Your task to perform on an android device: Go to internet settings Image 0: 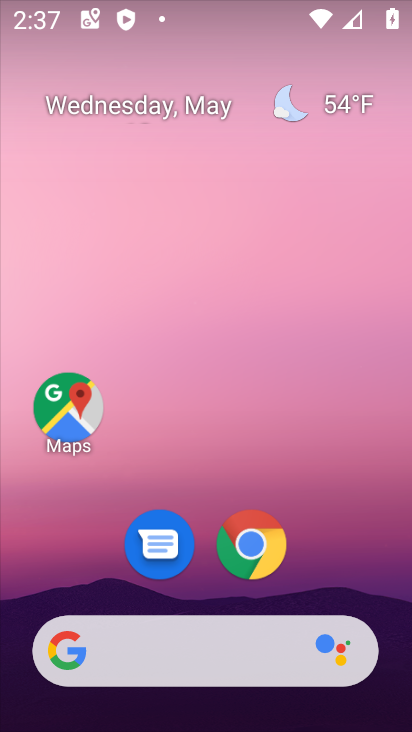
Step 0: drag from (363, 546) to (21, 0)
Your task to perform on an android device: Go to internet settings Image 1: 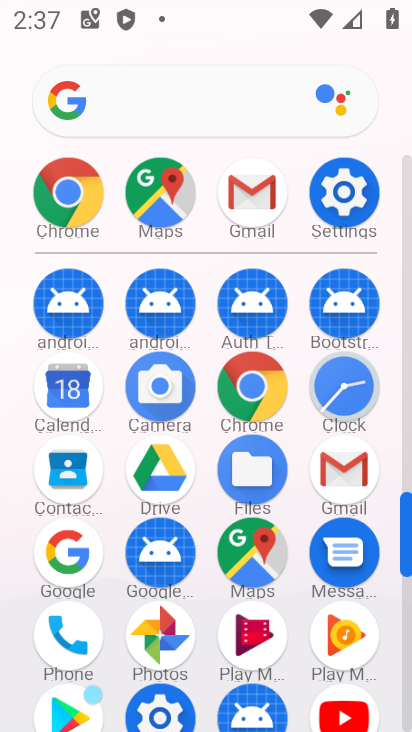
Step 1: click (331, 234)
Your task to perform on an android device: Go to internet settings Image 2: 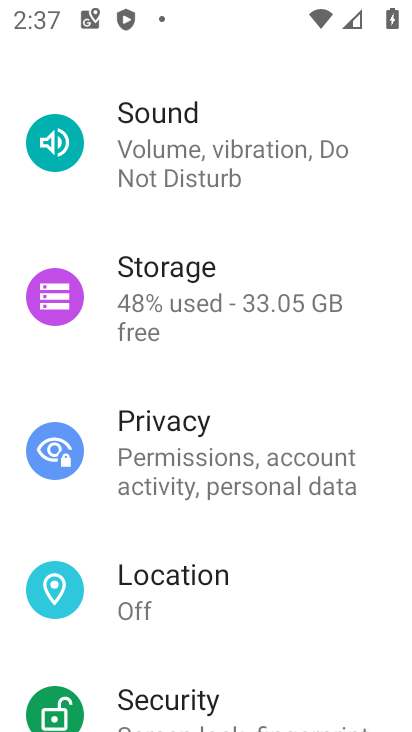
Step 2: drag from (266, 214) to (280, 690)
Your task to perform on an android device: Go to internet settings Image 3: 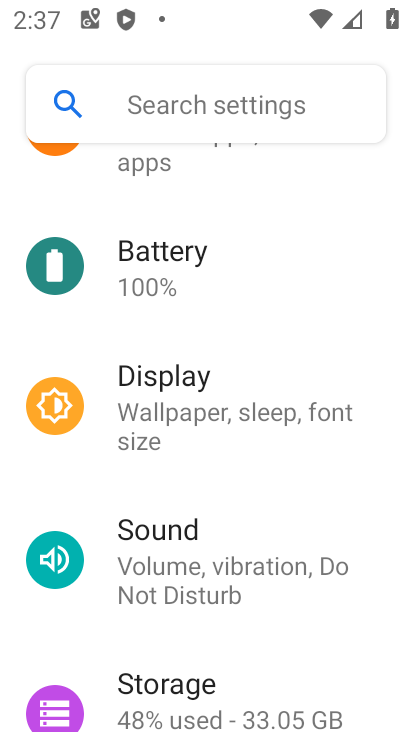
Step 3: drag from (192, 297) to (207, 687)
Your task to perform on an android device: Go to internet settings Image 4: 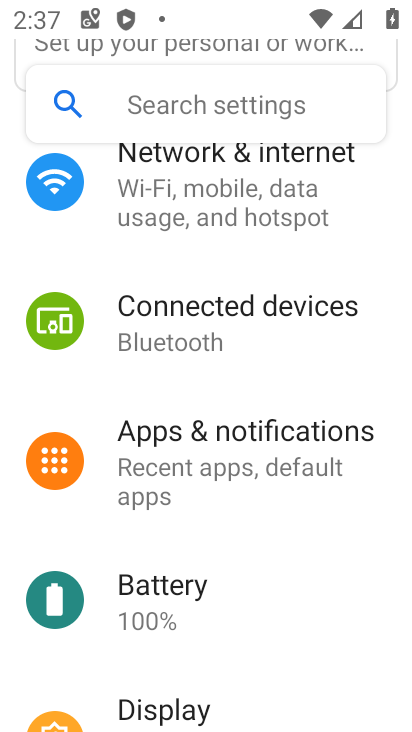
Step 4: click (124, 222)
Your task to perform on an android device: Go to internet settings Image 5: 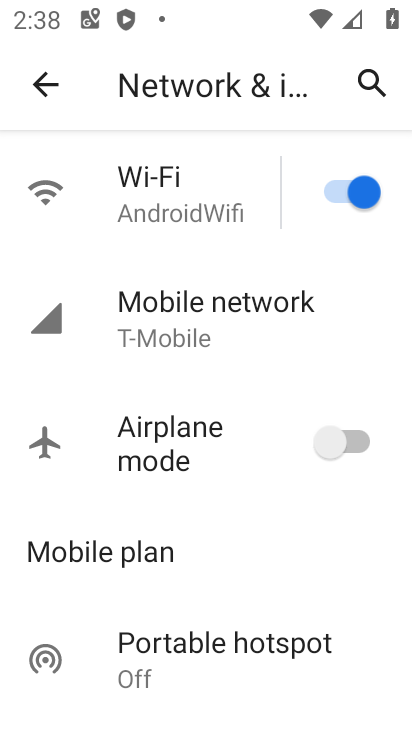
Step 5: task complete